Your task to perform on an android device: turn off priority inbox in the gmail app Image 0: 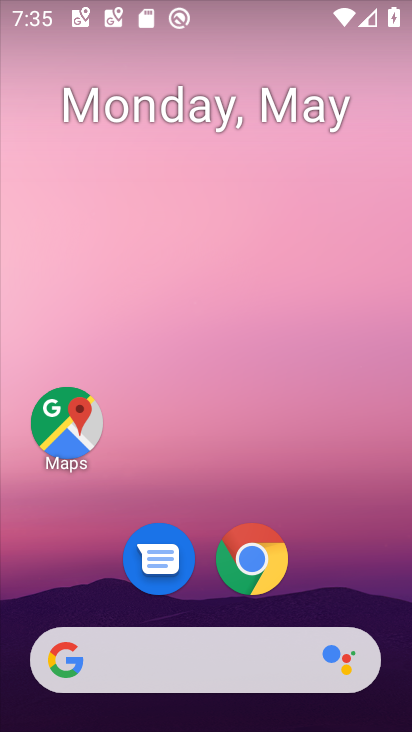
Step 0: drag from (369, 611) to (330, 50)
Your task to perform on an android device: turn off priority inbox in the gmail app Image 1: 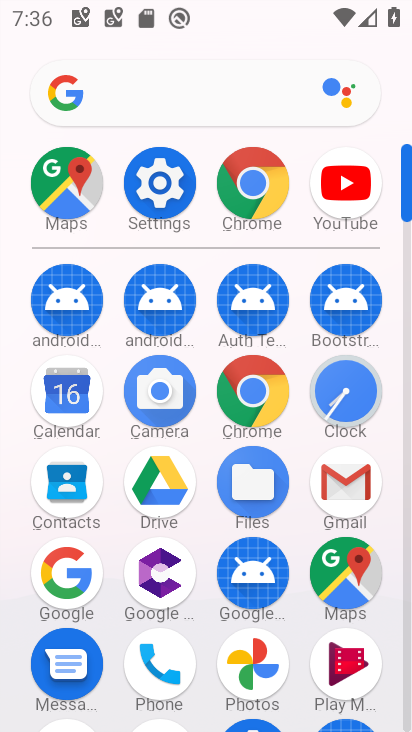
Step 1: click (358, 509)
Your task to perform on an android device: turn off priority inbox in the gmail app Image 2: 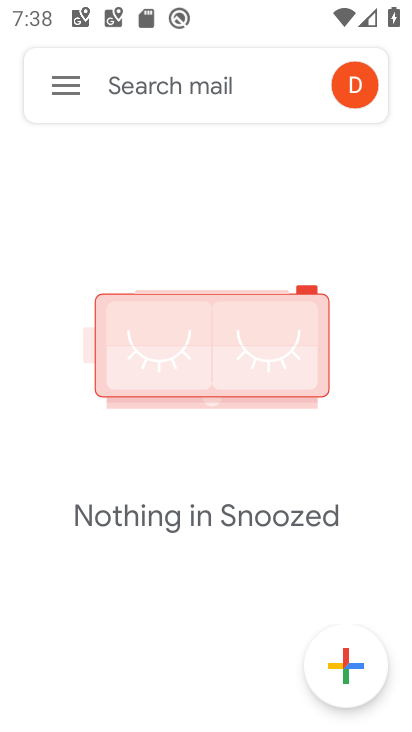
Step 2: click (66, 82)
Your task to perform on an android device: turn off priority inbox in the gmail app Image 3: 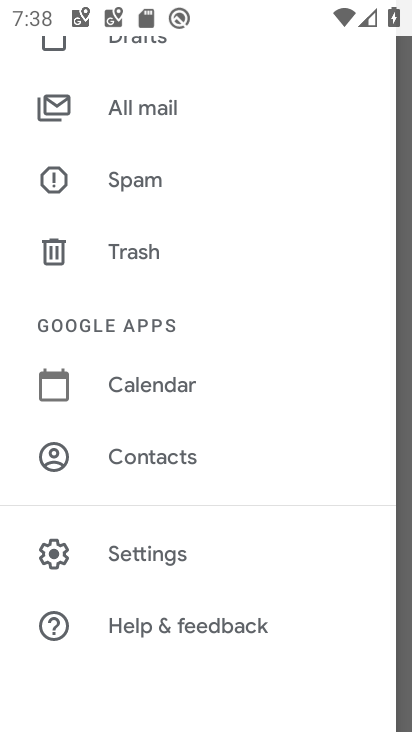
Step 3: click (125, 561)
Your task to perform on an android device: turn off priority inbox in the gmail app Image 4: 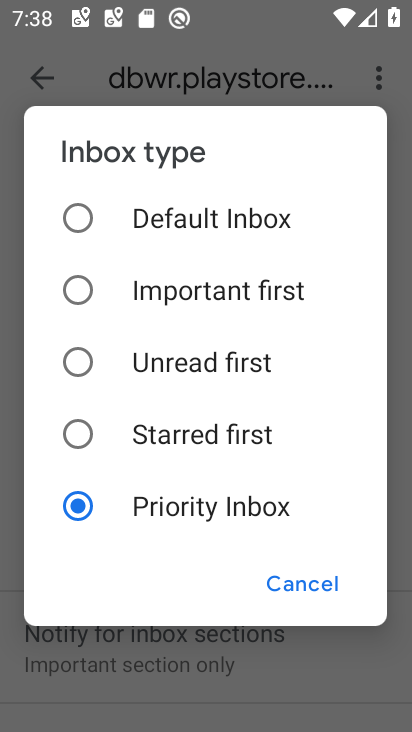
Step 4: click (105, 423)
Your task to perform on an android device: turn off priority inbox in the gmail app Image 5: 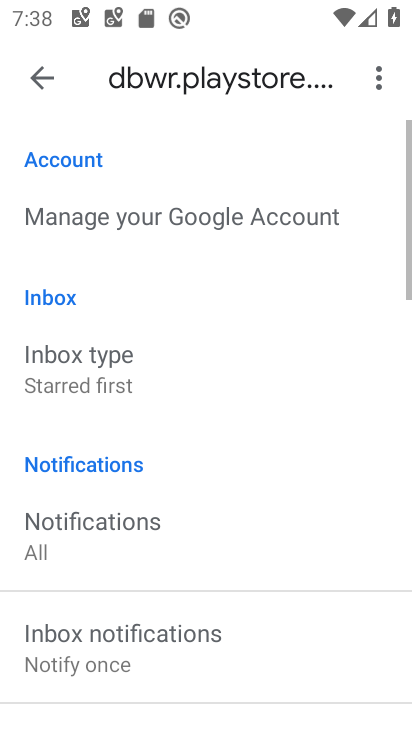
Step 5: task complete